Your task to perform on an android device: choose inbox layout in the gmail app Image 0: 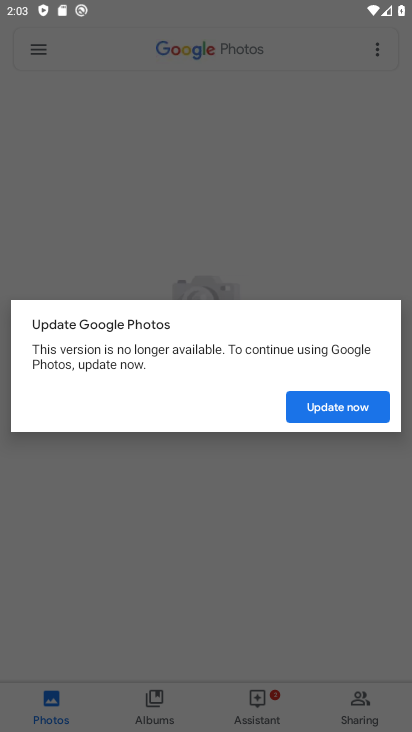
Step 0: press back button
Your task to perform on an android device: choose inbox layout in the gmail app Image 1: 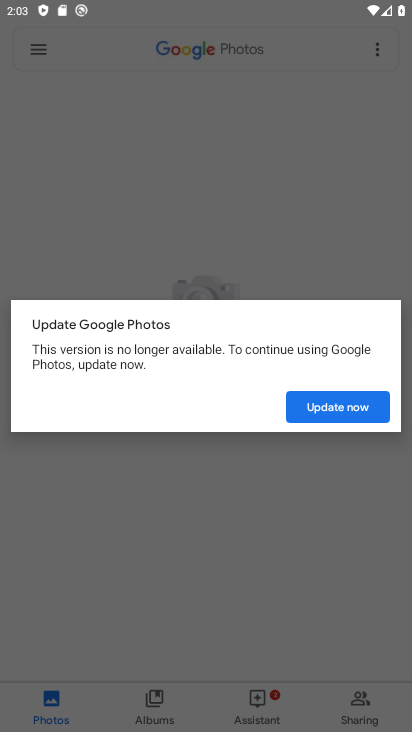
Step 1: press back button
Your task to perform on an android device: choose inbox layout in the gmail app Image 2: 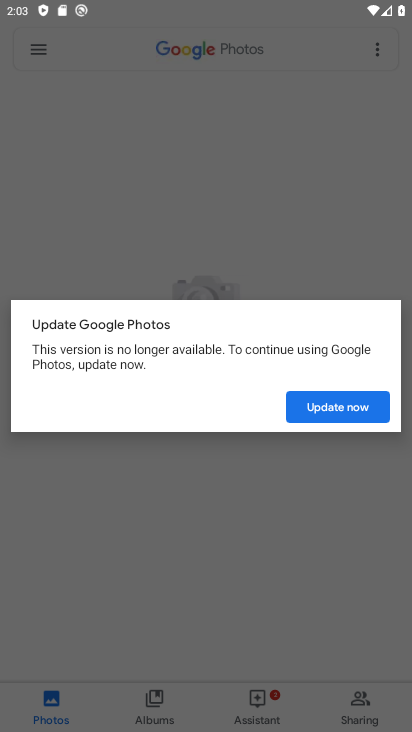
Step 2: click (262, 226)
Your task to perform on an android device: choose inbox layout in the gmail app Image 3: 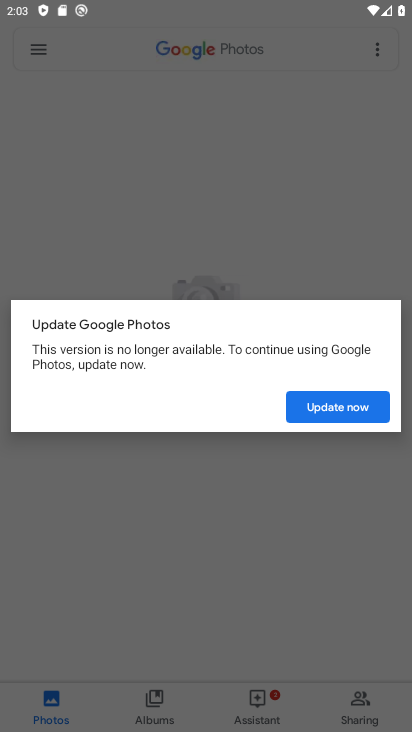
Step 3: press back button
Your task to perform on an android device: choose inbox layout in the gmail app Image 4: 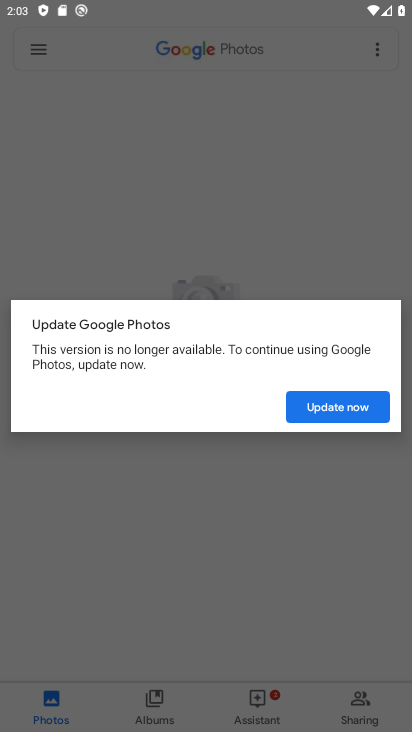
Step 4: press back button
Your task to perform on an android device: choose inbox layout in the gmail app Image 5: 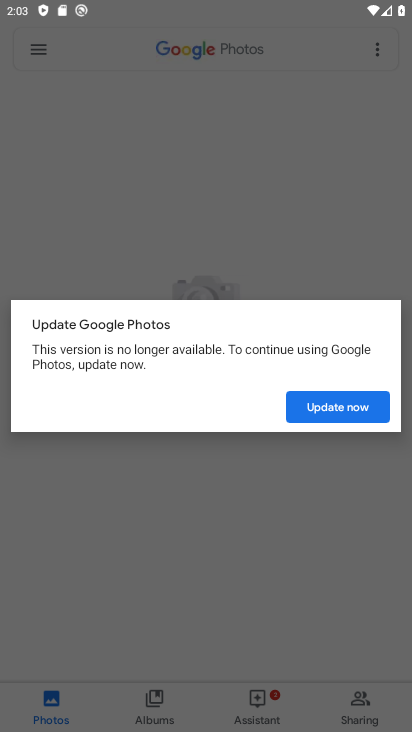
Step 5: click (230, 173)
Your task to perform on an android device: choose inbox layout in the gmail app Image 6: 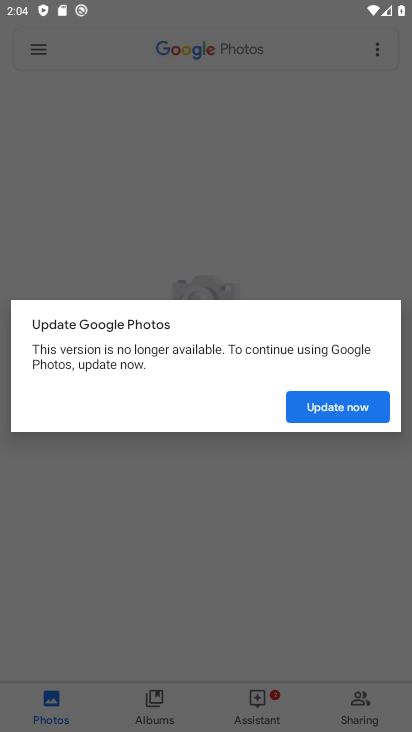
Step 6: click (229, 174)
Your task to perform on an android device: choose inbox layout in the gmail app Image 7: 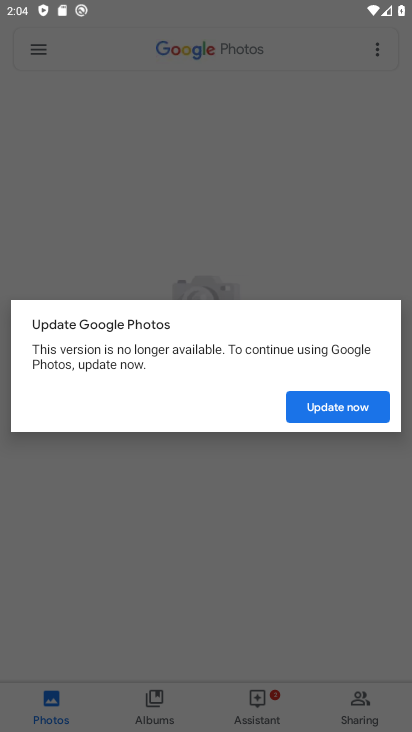
Step 7: click (229, 175)
Your task to perform on an android device: choose inbox layout in the gmail app Image 8: 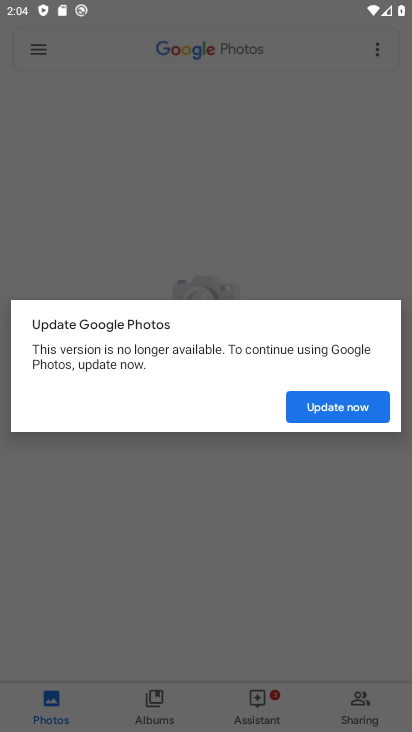
Step 8: click (228, 174)
Your task to perform on an android device: choose inbox layout in the gmail app Image 9: 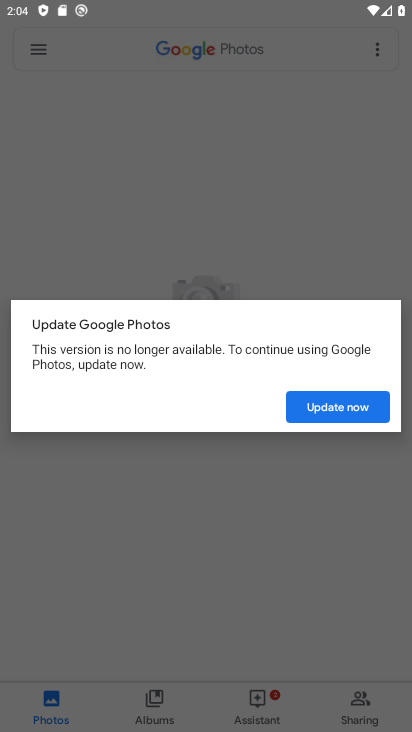
Step 9: click (228, 175)
Your task to perform on an android device: choose inbox layout in the gmail app Image 10: 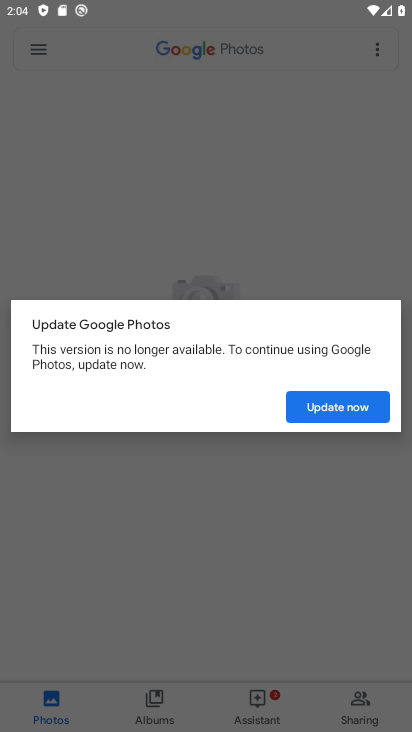
Step 10: click (342, 185)
Your task to perform on an android device: choose inbox layout in the gmail app Image 11: 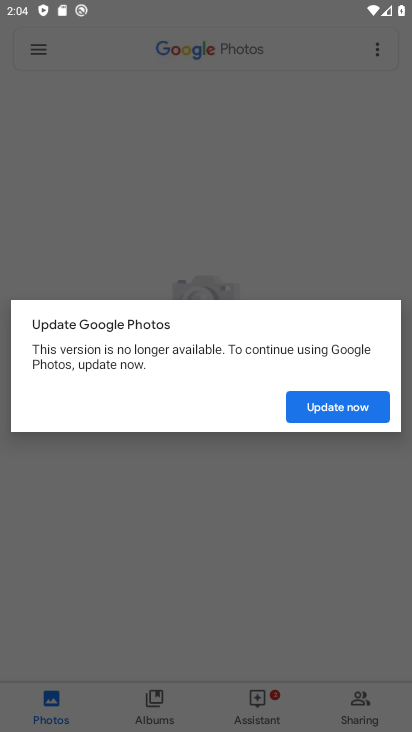
Step 11: click (342, 187)
Your task to perform on an android device: choose inbox layout in the gmail app Image 12: 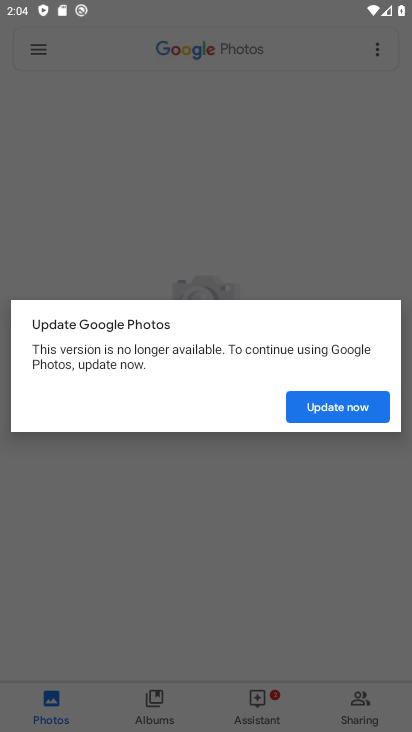
Step 12: click (381, 180)
Your task to perform on an android device: choose inbox layout in the gmail app Image 13: 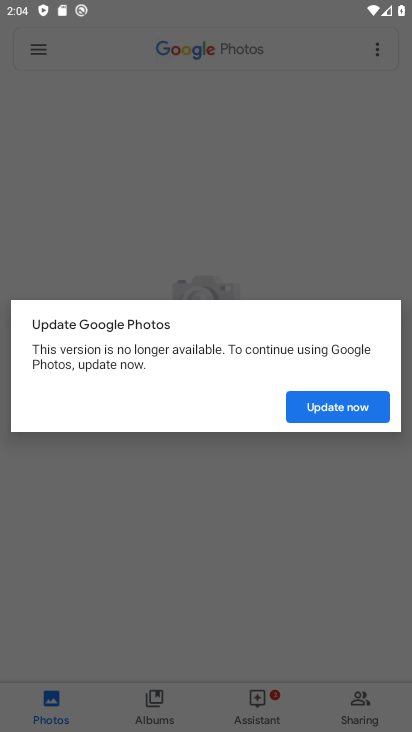
Step 13: click (321, 205)
Your task to perform on an android device: choose inbox layout in the gmail app Image 14: 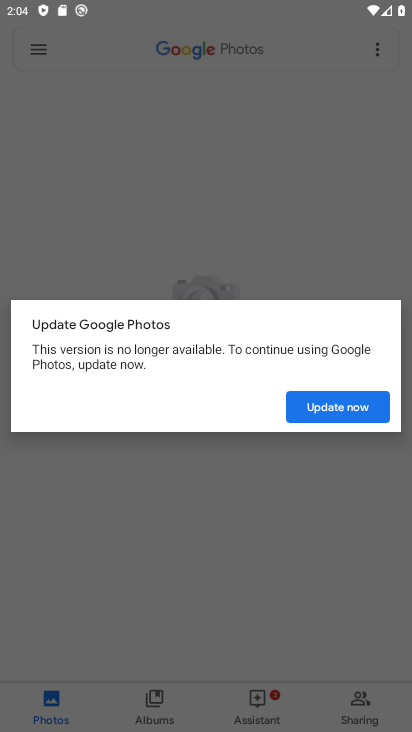
Step 14: click (323, 198)
Your task to perform on an android device: choose inbox layout in the gmail app Image 15: 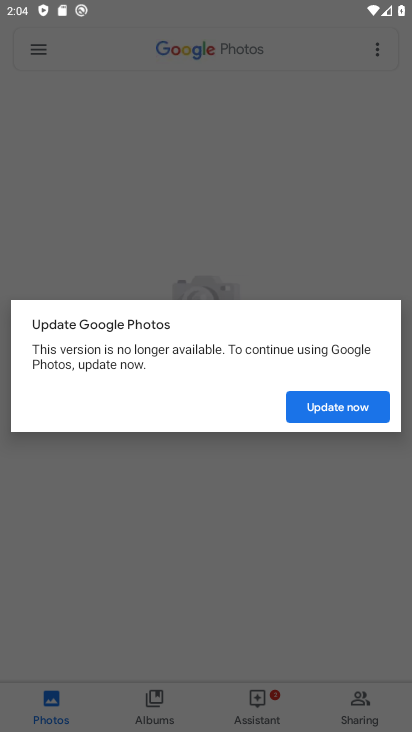
Step 15: click (342, 413)
Your task to perform on an android device: choose inbox layout in the gmail app Image 16: 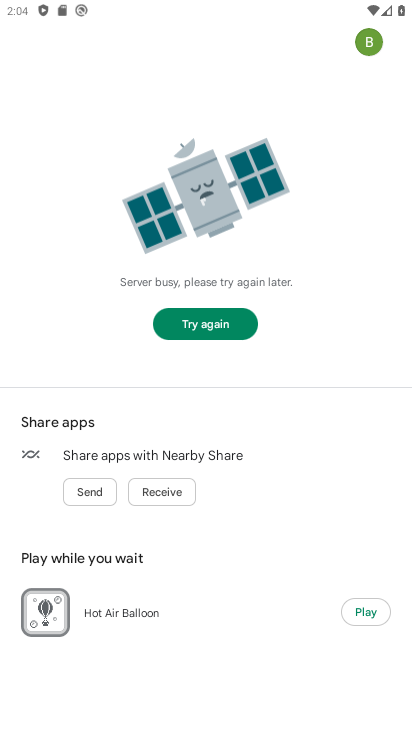
Step 16: task complete